Your task to perform on an android device: find snoozed emails in the gmail app Image 0: 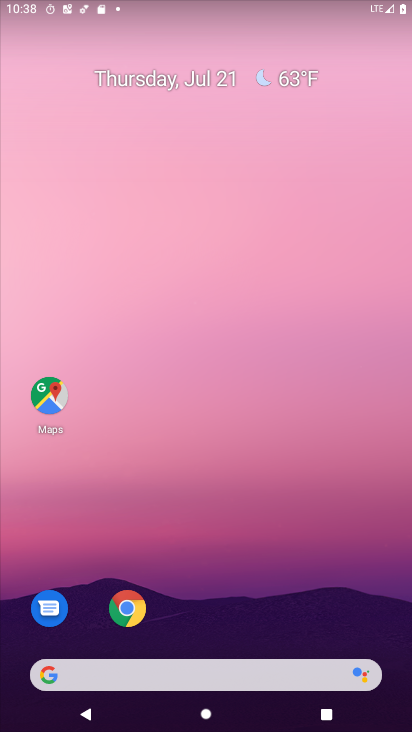
Step 0: drag from (251, 670) to (294, 11)
Your task to perform on an android device: find snoozed emails in the gmail app Image 1: 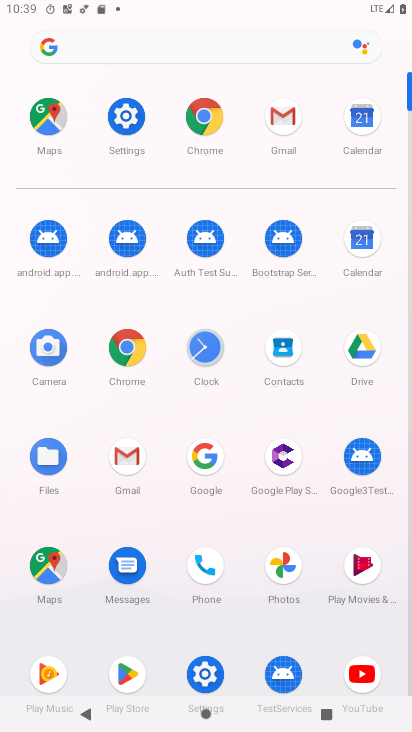
Step 1: click (286, 136)
Your task to perform on an android device: find snoozed emails in the gmail app Image 2: 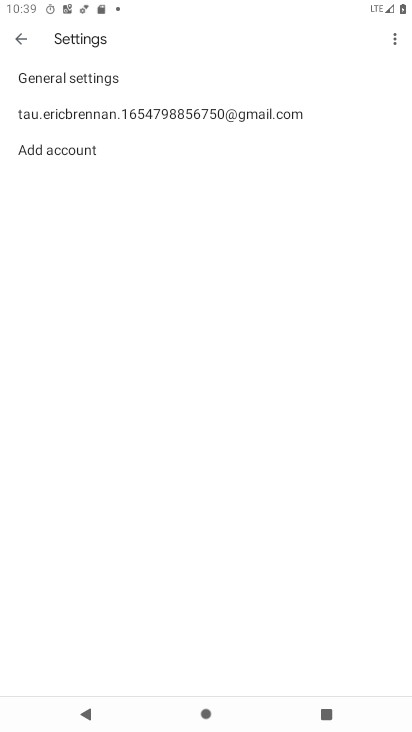
Step 2: click (16, 34)
Your task to perform on an android device: find snoozed emails in the gmail app Image 3: 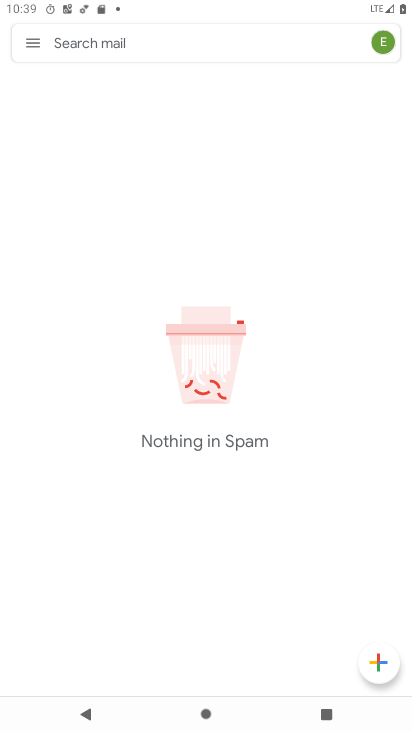
Step 3: click (35, 41)
Your task to perform on an android device: find snoozed emails in the gmail app Image 4: 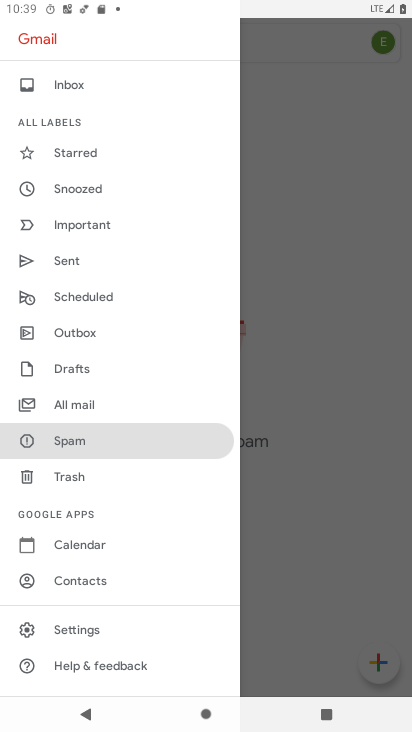
Step 4: click (80, 195)
Your task to perform on an android device: find snoozed emails in the gmail app Image 5: 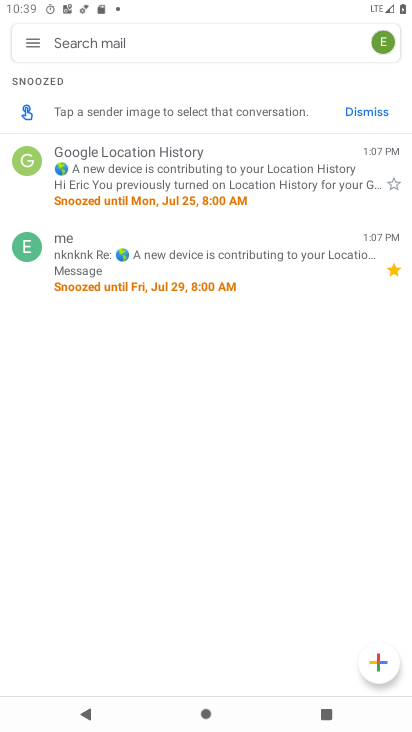
Step 5: task complete